Your task to perform on an android device: turn on wifi Image 0: 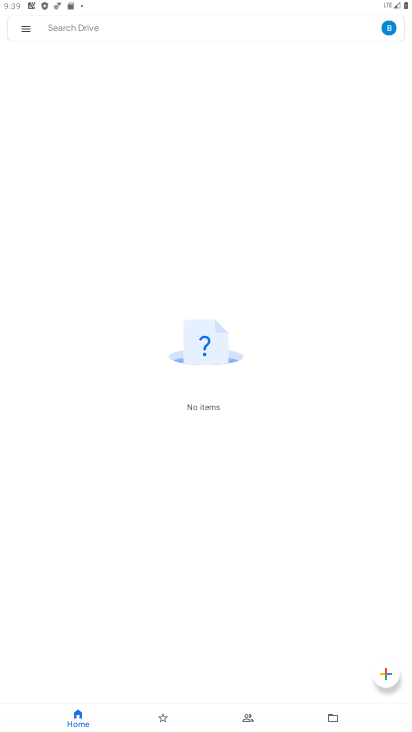
Step 0: drag from (316, 625) to (239, 86)
Your task to perform on an android device: turn on wifi Image 1: 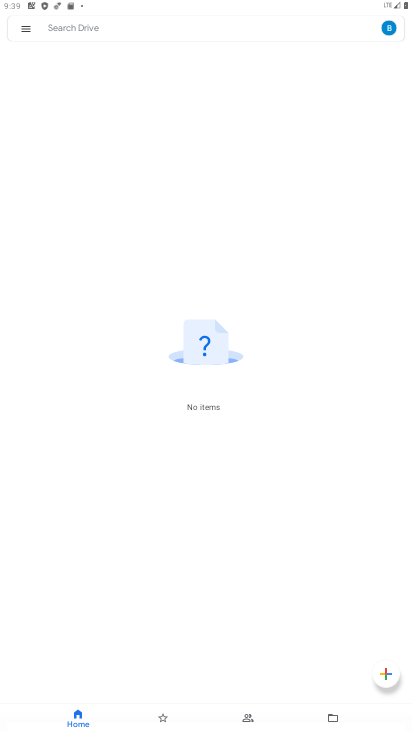
Step 1: drag from (189, 585) to (228, 164)
Your task to perform on an android device: turn on wifi Image 2: 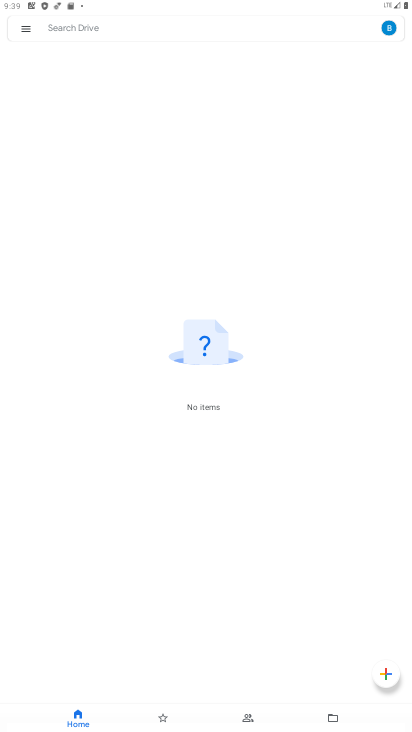
Step 2: press home button
Your task to perform on an android device: turn on wifi Image 3: 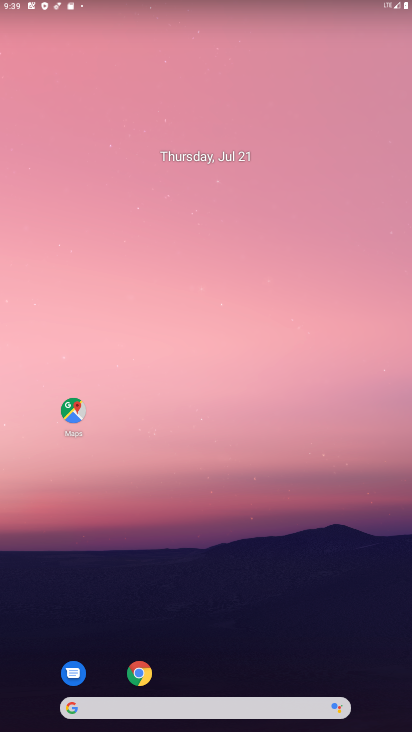
Step 3: drag from (197, 484) to (239, 1)
Your task to perform on an android device: turn on wifi Image 4: 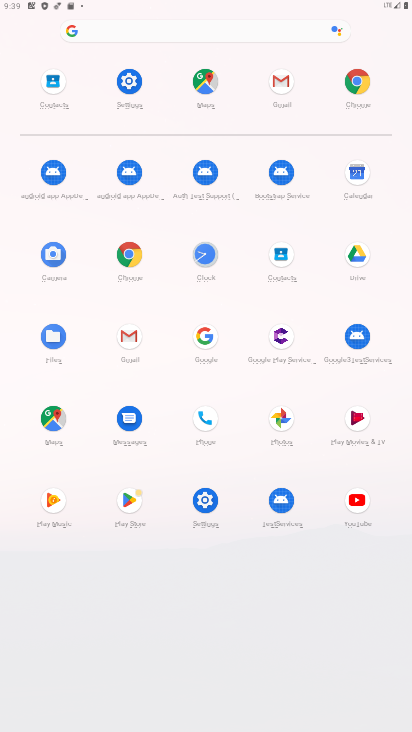
Step 4: click (116, 61)
Your task to perform on an android device: turn on wifi Image 5: 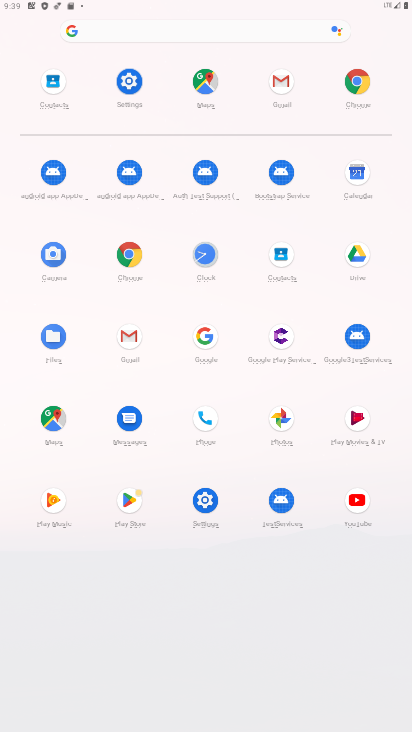
Step 5: click (127, 70)
Your task to perform on an android device: turn on wifi Image 6: 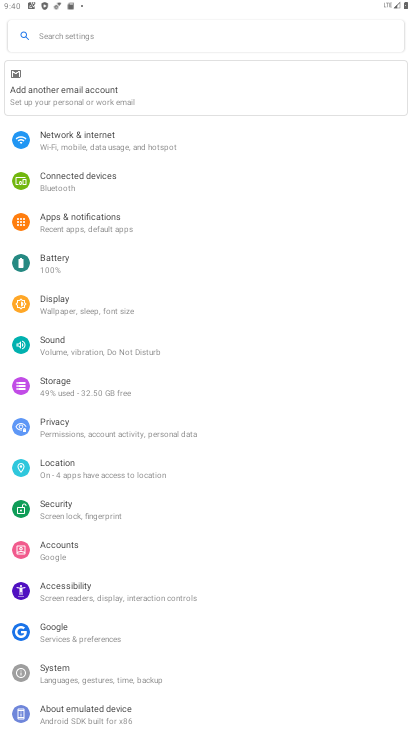
Step 6: click (94, 135)
Your task to perform on an android device: turn on wifi Image 7: 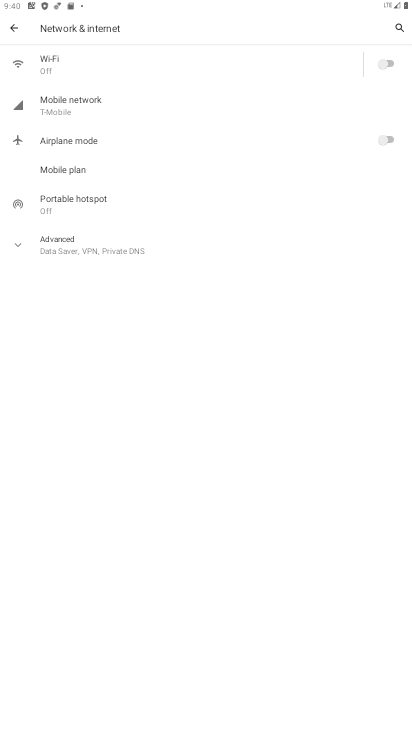
Step 7: click (141, 69)
Your task to perform on an android device: turn on wifi Image 8: 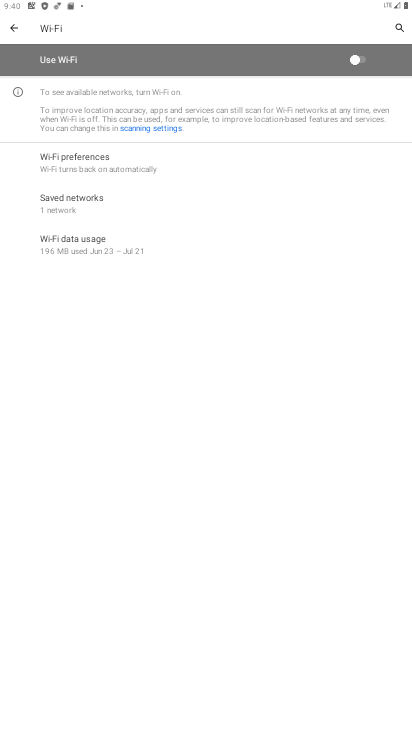
Step 8: click (321, 59)
Your task to perform on an android device: turn on wifi Image 9: 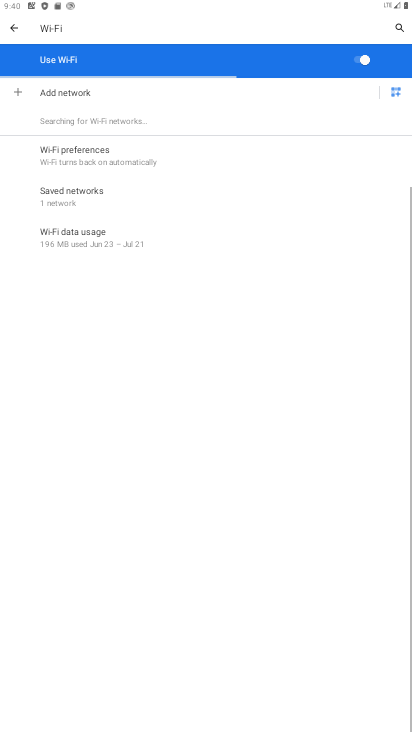
Step 9: task complete